Your task to perform on an android device: visit the assistant section in the google photos Image 0: 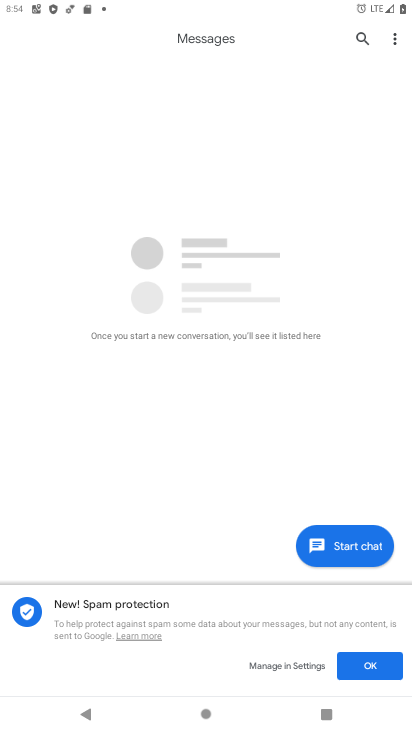
Step 0: press home button
Your task to perform on an android device: visit the assistant section in the google photos Image 1: 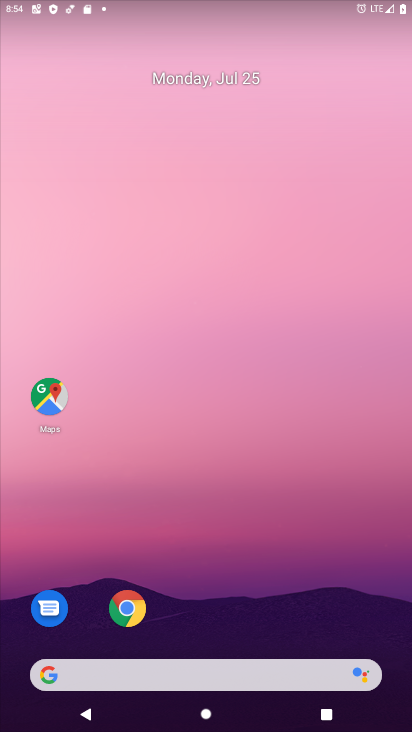
Step 1: drag from (236, 725) to (233, 407)
Your task to perform on an android device: visit the assistant section in the google photos Image 2: 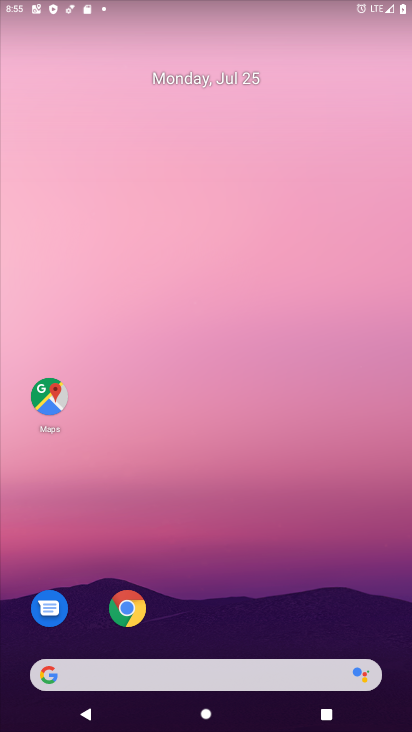
Step 2: drag from (232, 592) to (233, 76)
Your task to perform on an android device: visit the assistant section in the google photos Image 3: 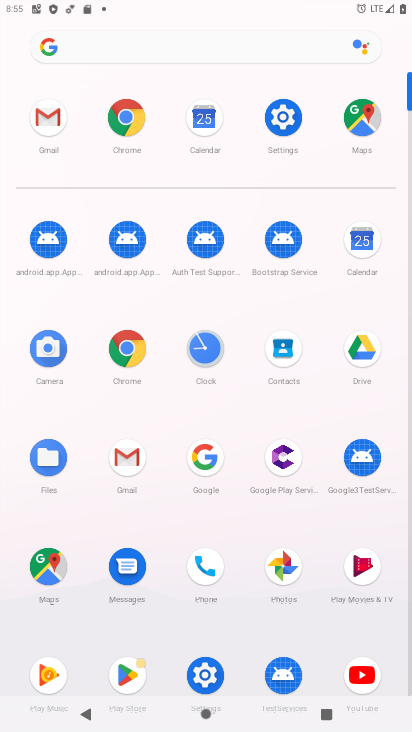
Step 3: click (284, 568)
Your task to perform on an android device: visit the assistant section in the google photos Image 4: 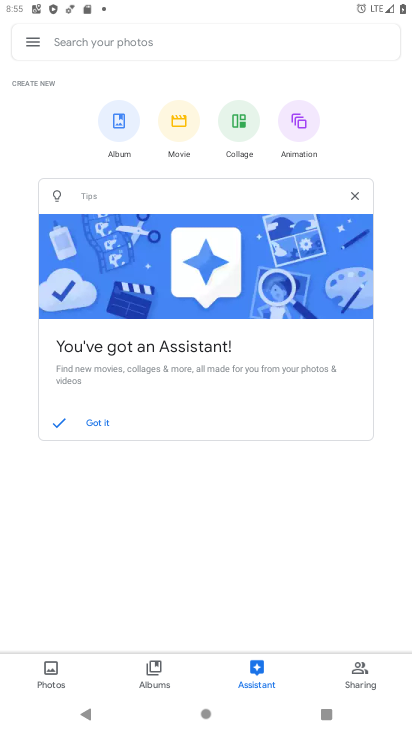
Step 4: task complete